Your task to perform on an android device: Open settings Image 0: 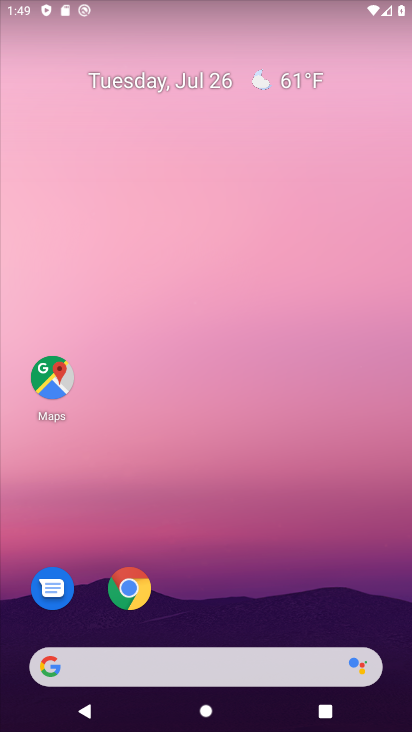
Step 0: drag from (245, 576) to (392, 31)
Your task to perform on an android device: Open settings Image 1: 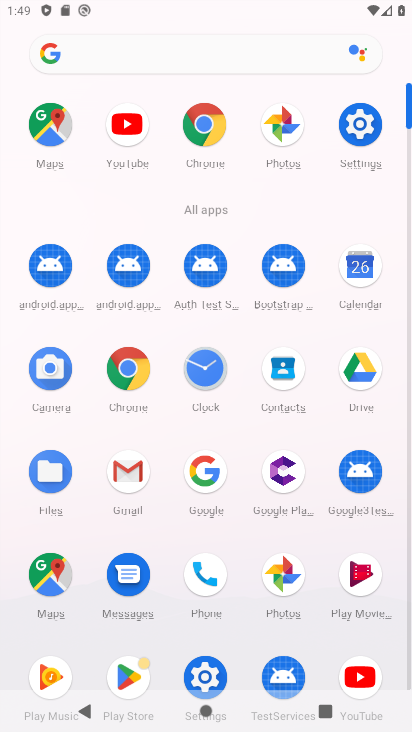
Step 1: click (371, 106)
Your task to perform on an android device: Open settings Image 2: 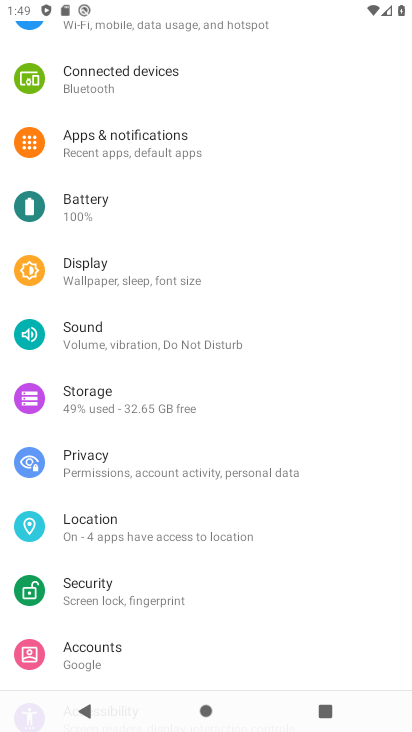
Step 2: task complete